Your task to perform on an android device: clear all cookies in the chrome app Image 0: 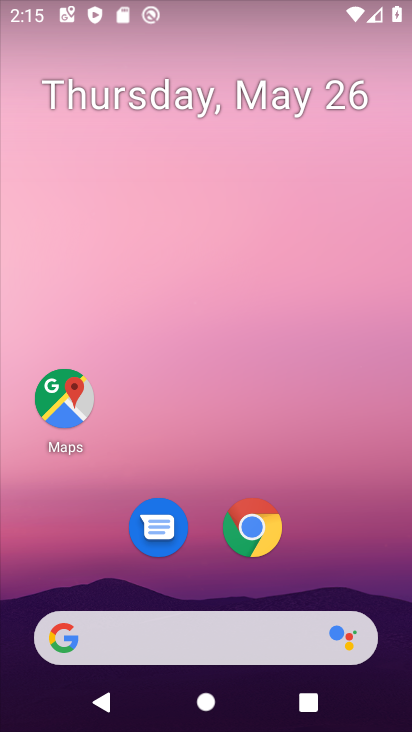
Step 0: click (256, 528)
Your task to perform on an android device: clear all cookies in the chrome app Image 1: 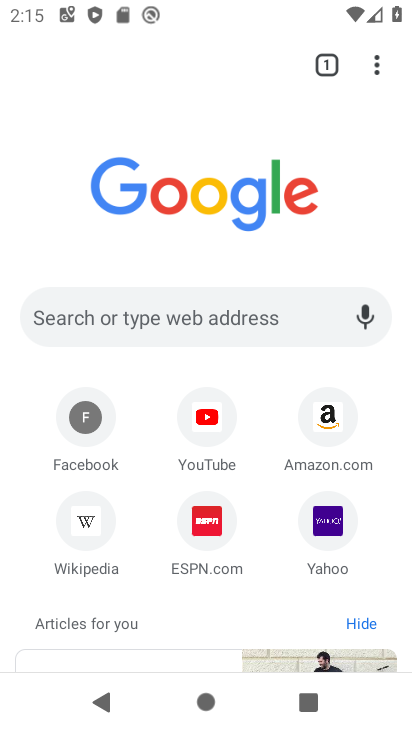
Step 1: drag from (374, 64) to (192, 550)
Your task to perform on an android device: clear all cookies in the chrome app Image 2: 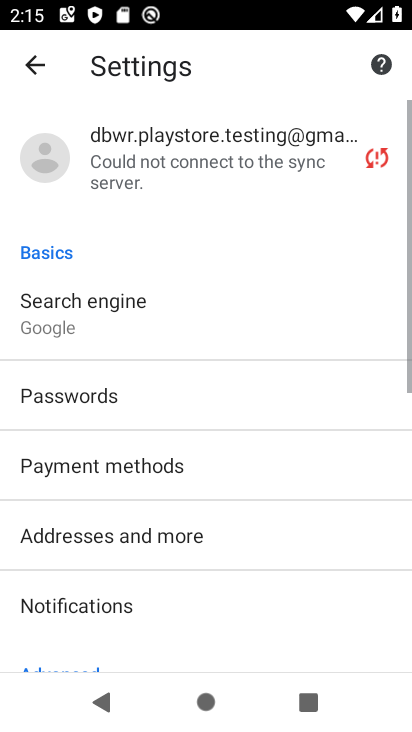
Step 2: drag from (145, 613) to (242, 76)
Your task to perform on an android device: clear all cookies in the chrome app Image 3: 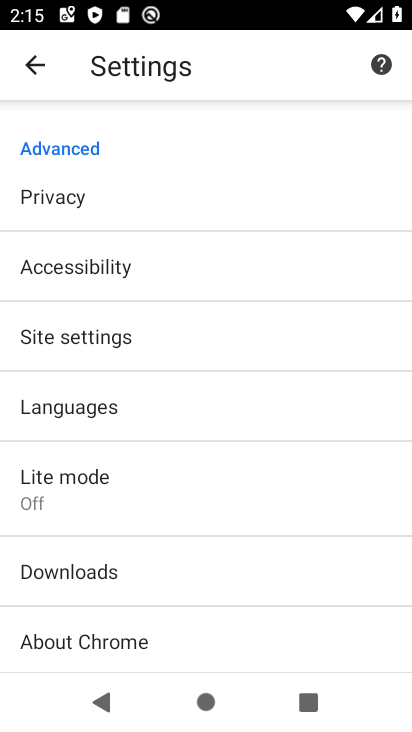
Step 3: click (82, 331)
Your task to perform on an android device: clear all cookies in the chrome app Image 4: 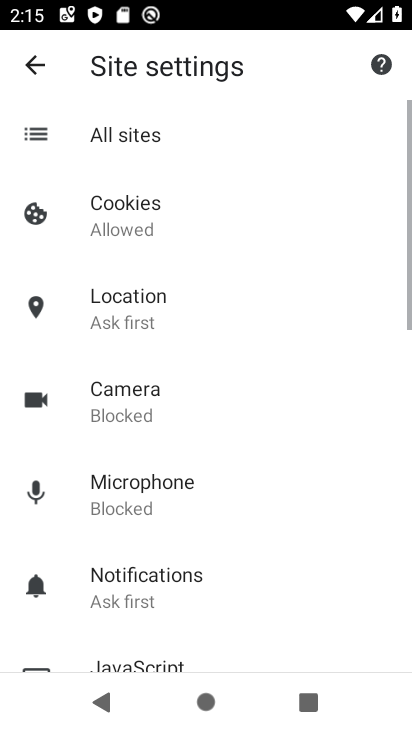
Step 4: click (169, 213)
Your task to perform on an android device: clear all cookies in the chrome app Image 5: 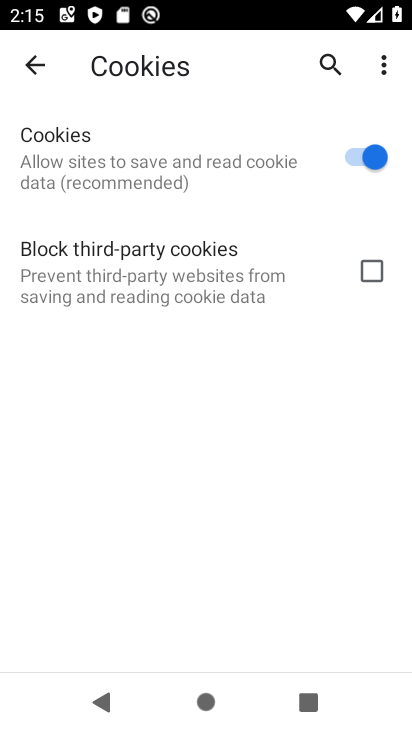
Step 5: click (31, 43)
Your task to perform on an android device: clear all cookies in the chrome app Image 6: 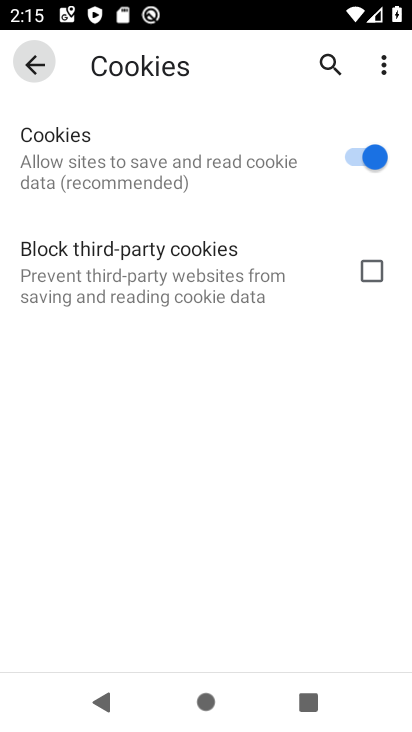
Step 6: click (30, 65)
Your task to perform on an android device: clear all cookies in the chrome app Image 7: 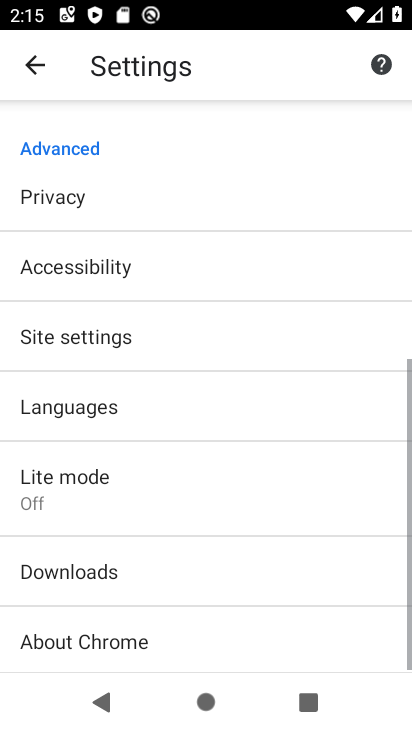
Step 7: click (30, 65)
Your task to perform on an android device: clear all cookies in the chrome app Image 8: 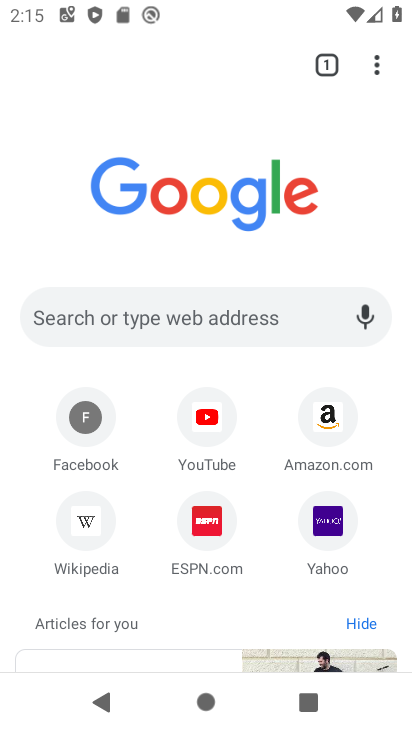
Step 8: click (383, 59)
Your task to perform on an android device: clear all cookies in the chrome app Image 9: 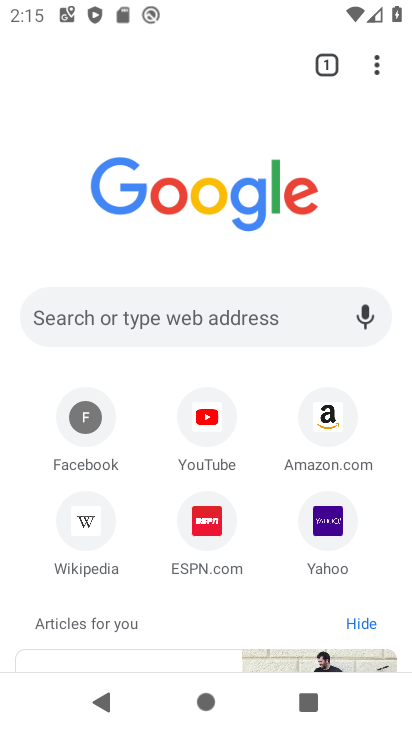
Step 9: task complete